Your task to perform on an android device: toggle priority inbox in the gmail app Image 0: 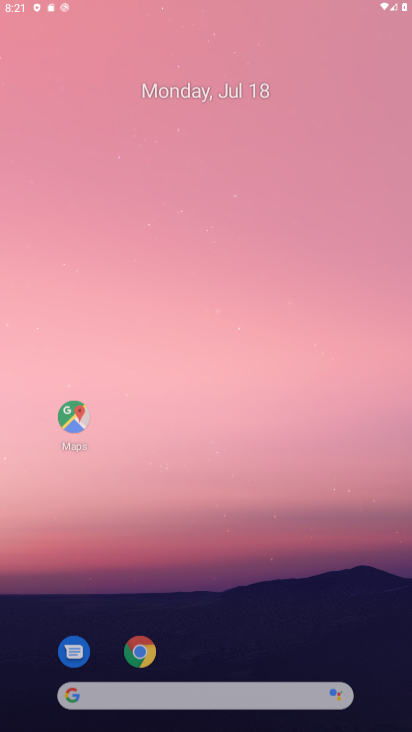
Step 0: press back button
Your task to perform on an android device: toggle priority inbox in the gmail app Image 1: 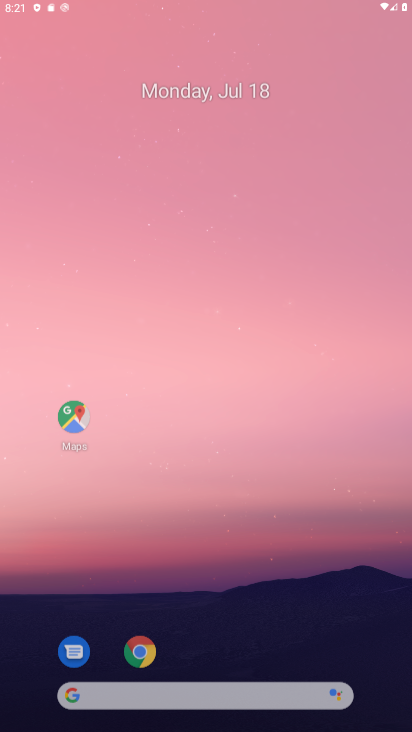
Step 1: click (164, 125)
Your task to perform on an android device: toggle priority inbox in the gmail app Image 2: 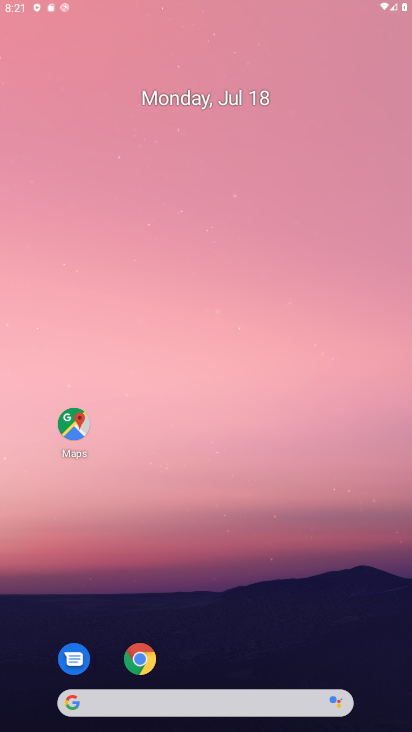
Step 2: drag from (202, 601) to (193, 124)
Your task to perform on an android device: toggle priority inbox in the gmail app Image 3: 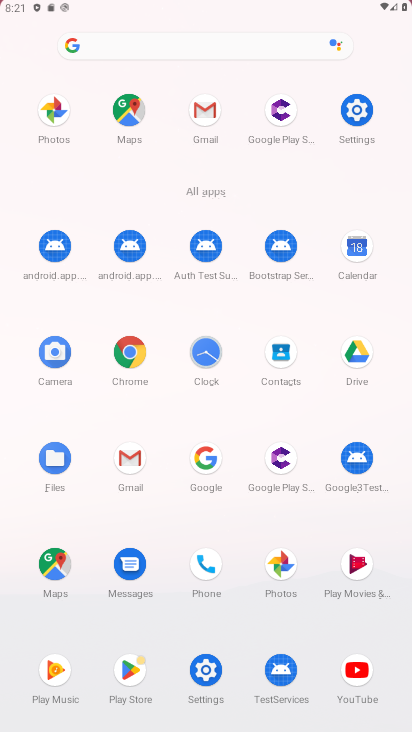
Step 3: drag from (225, 683) to (195, 178)
Your task to perform on an android device: toggle priority inbox in the gmail app Image 4: 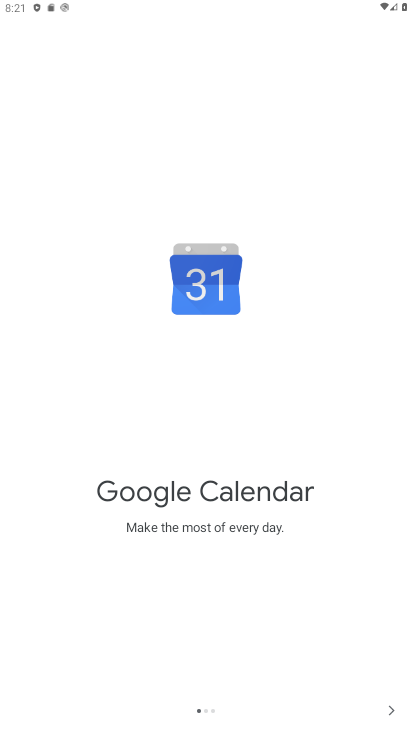
Step 4: press back button
Your task to perform on an android device: toggle priority inbox in the gmail app Image 5: 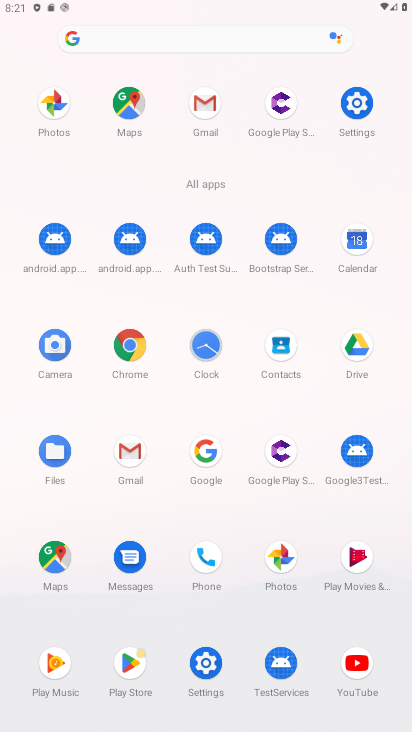
Step 5: click (127, 451)
Your task to perform on an android device: toggle priority inbox in the gmail app Image 6: 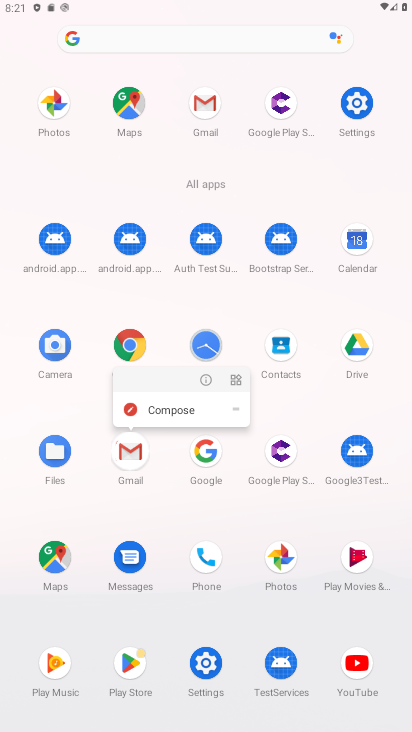
Step 6: click (128, 451)
Your task to perform on an android device: toggle priority inbox in the gmail app Image 7: 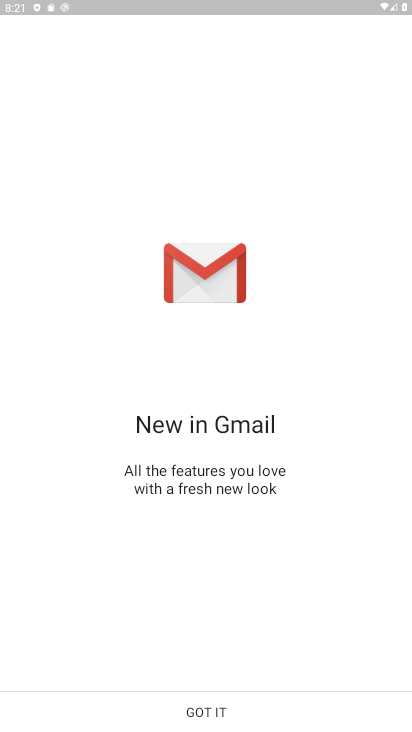
Step 7: click (224, 709)
Your task to perform on an android device: toggle priority inbox in the gmail app Image 8: 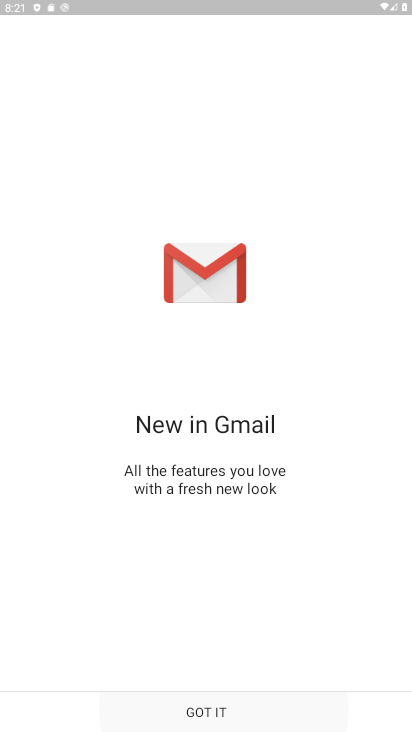
Step 8: click (224, 709)
Your task to perform on an android device: toggle priority inbox in the gmail app Image 9: 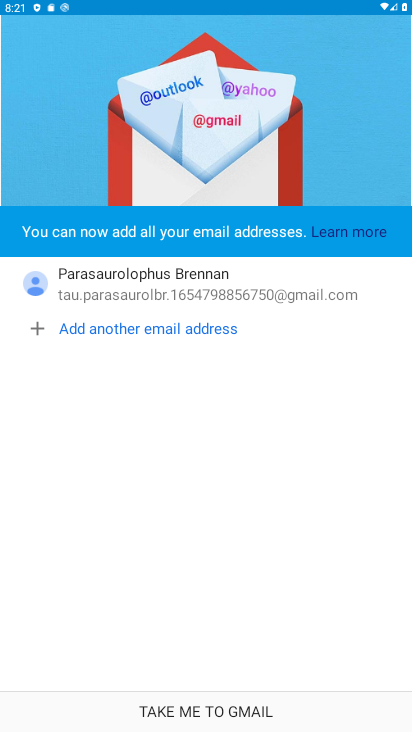
Step 9: click (222, 694)
Your task to perform on an android device: toggle priority inbox in the gmail app Image 10: 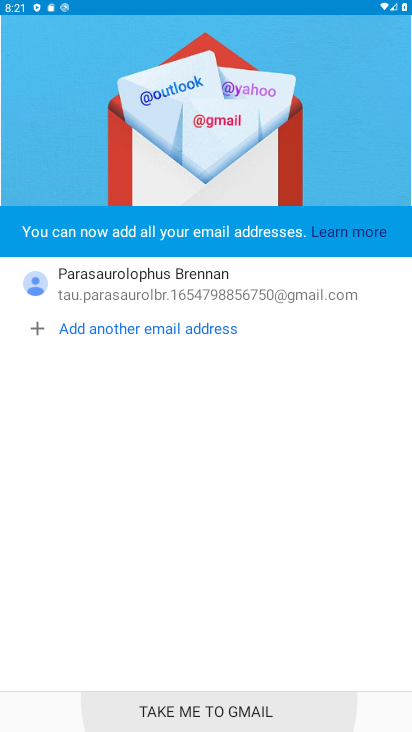
Step 10: click (222, 694)
Your task to perform on an android device: toggle priority inbox in the gmail app Image 11: 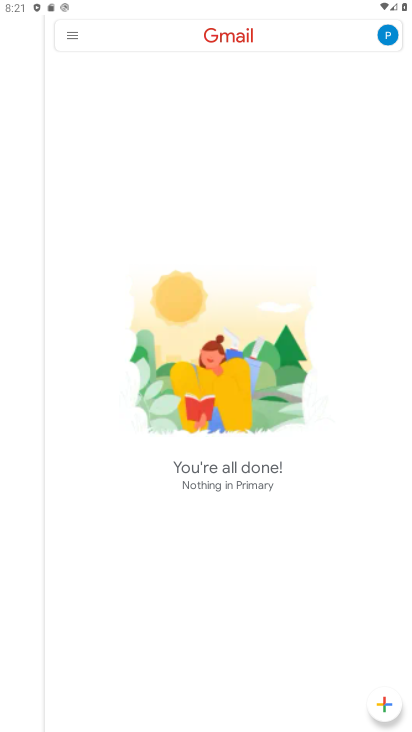
Step 11: click (24, 44)
Your task to perform on an android device: toggle priority inbox in the gmail app Image 12: 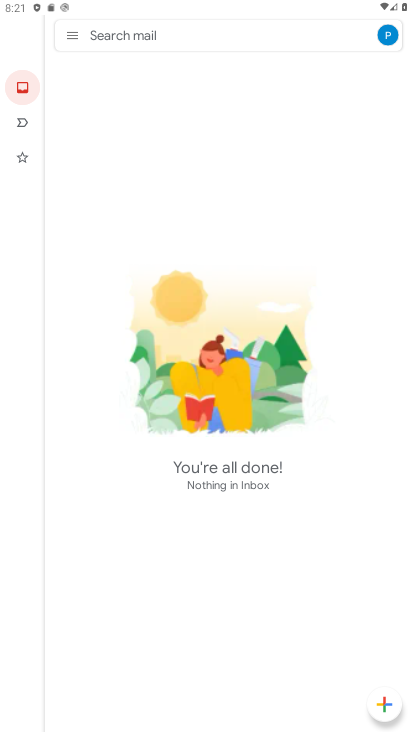
Step 12: click (76, 36)
Your task to perform on an android device: toggle priority inbox in the gmail app Image 13: 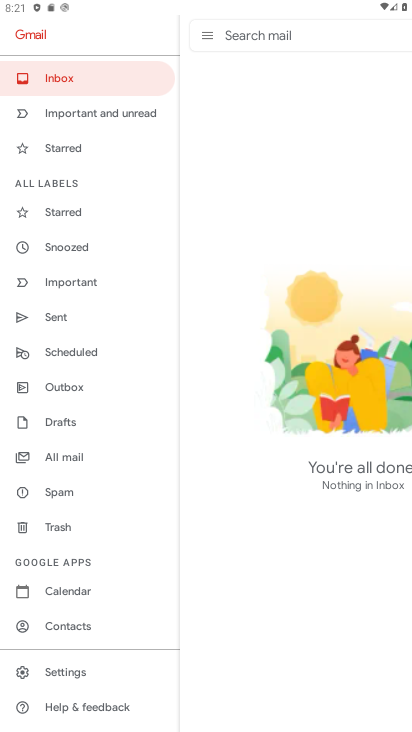
Step 13: click (81, 669)
Your task to perform on an android device: toggle priority inbox in the gmail app Image 14: 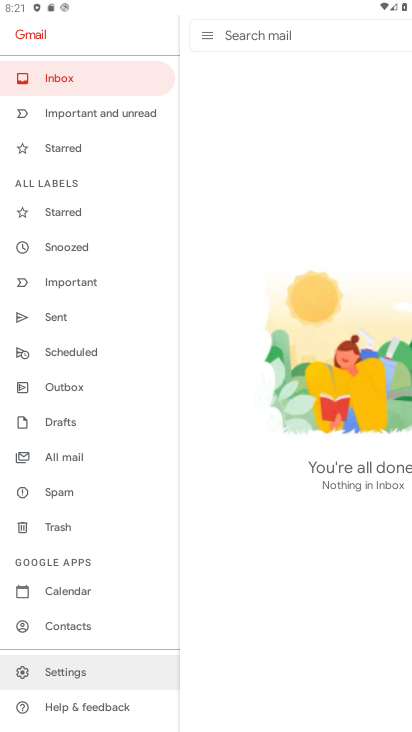
Step 14: click (76, 666)
Your task to perform on an android device: toggle priority inbox in the gmail app Image 15: 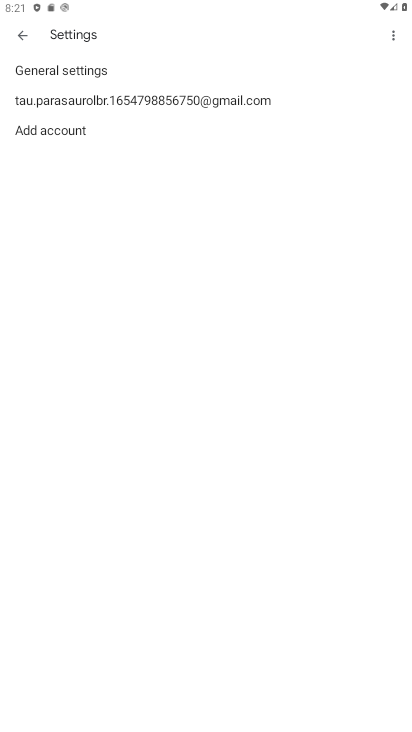
Step 15: click (74, 100)
Your task to perform on an android device: toggle priority inbox in the gmail app Image 16: 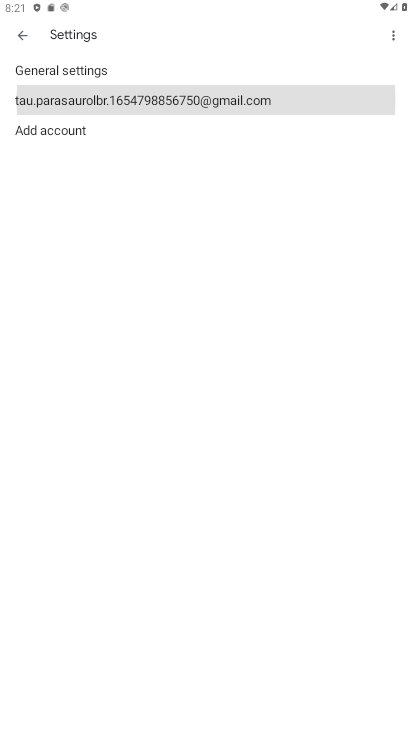
Step 16: click (76, 102)
Your task to perform on an android device: toggle priority inbox in the gmail app Image 17: 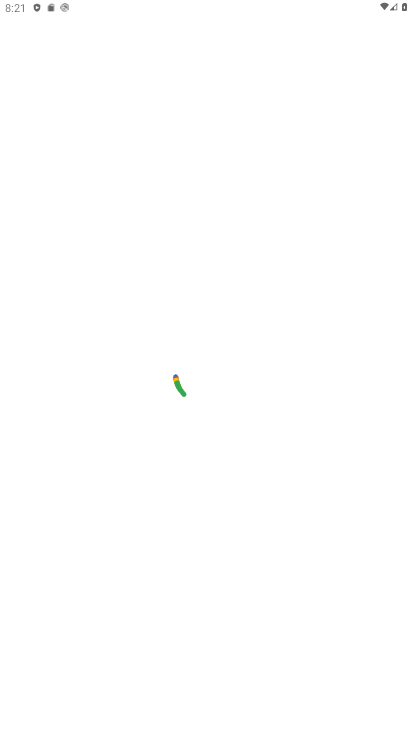
Step 17: task complete